Your task to perform on an android device: open app "Skype" (install if not already installed) and go to login screen Image 0: 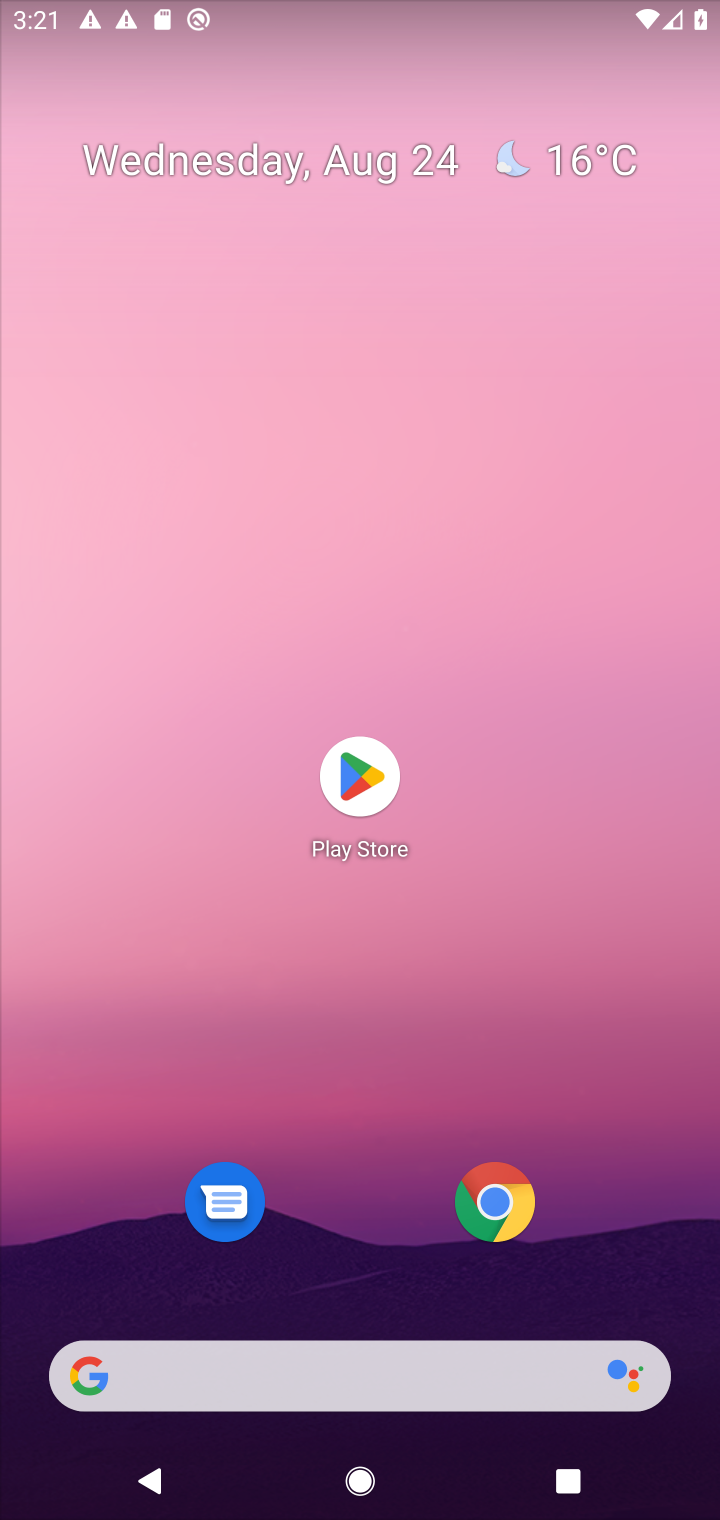
Step 0: press home button
Your task to perform on an android device: open app "Skype" (install if not already installed) and go to login screen Image 1: 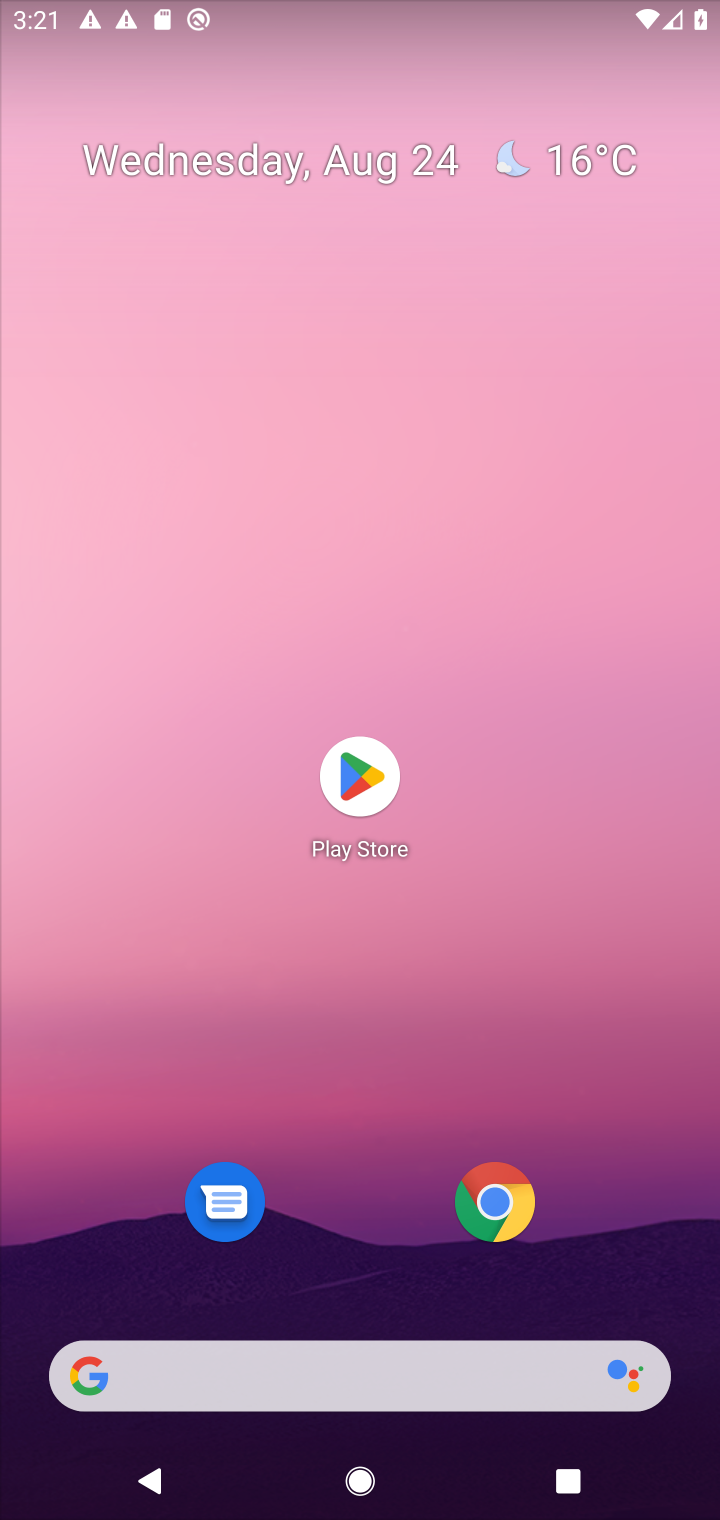
Step 1: click (369, 782)
Your task to perform on an android device: open app "Skype" (install if not already installed) and go to login screen Image 2: 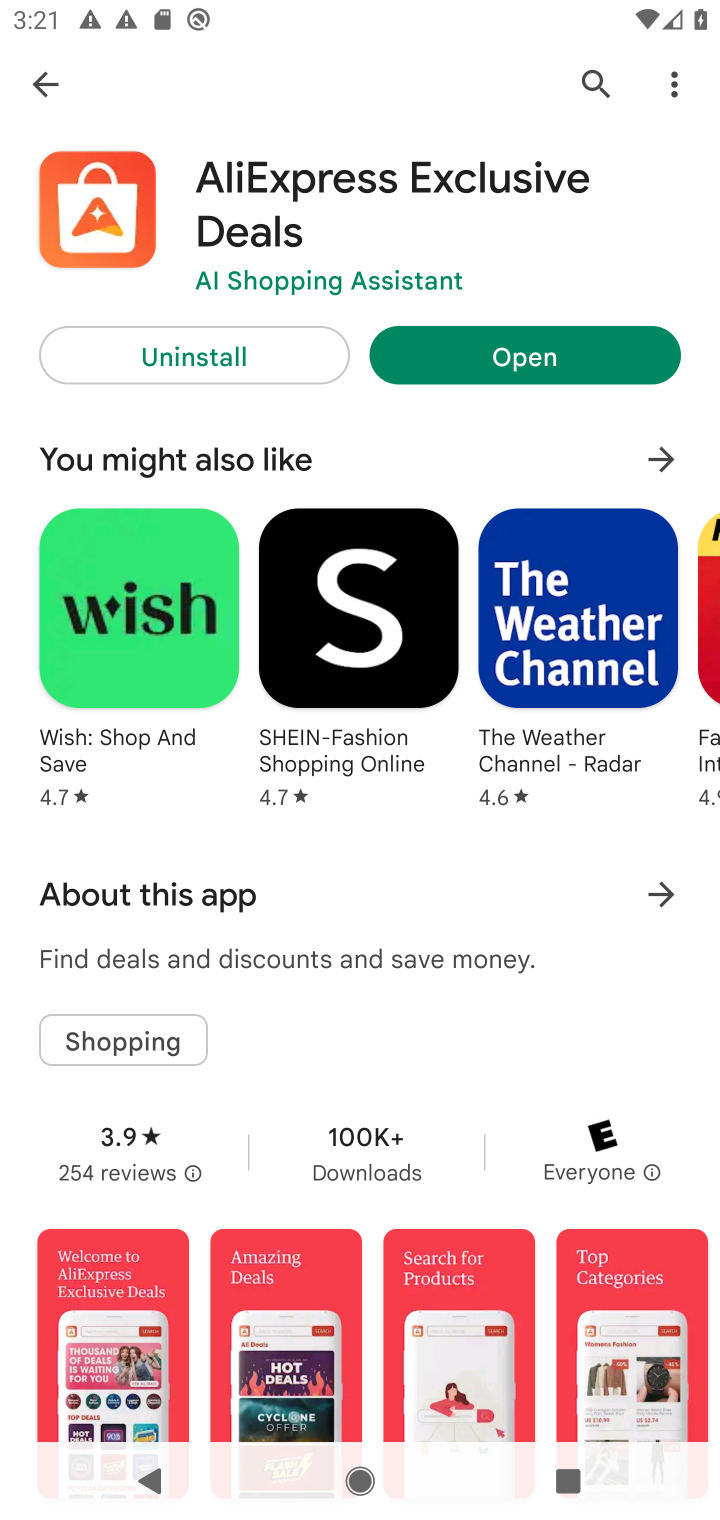
Step 2: click (590, 76)
Your task to perform on an android device: open app "Skype" (install if not already installed) and go to login screen Image 3: 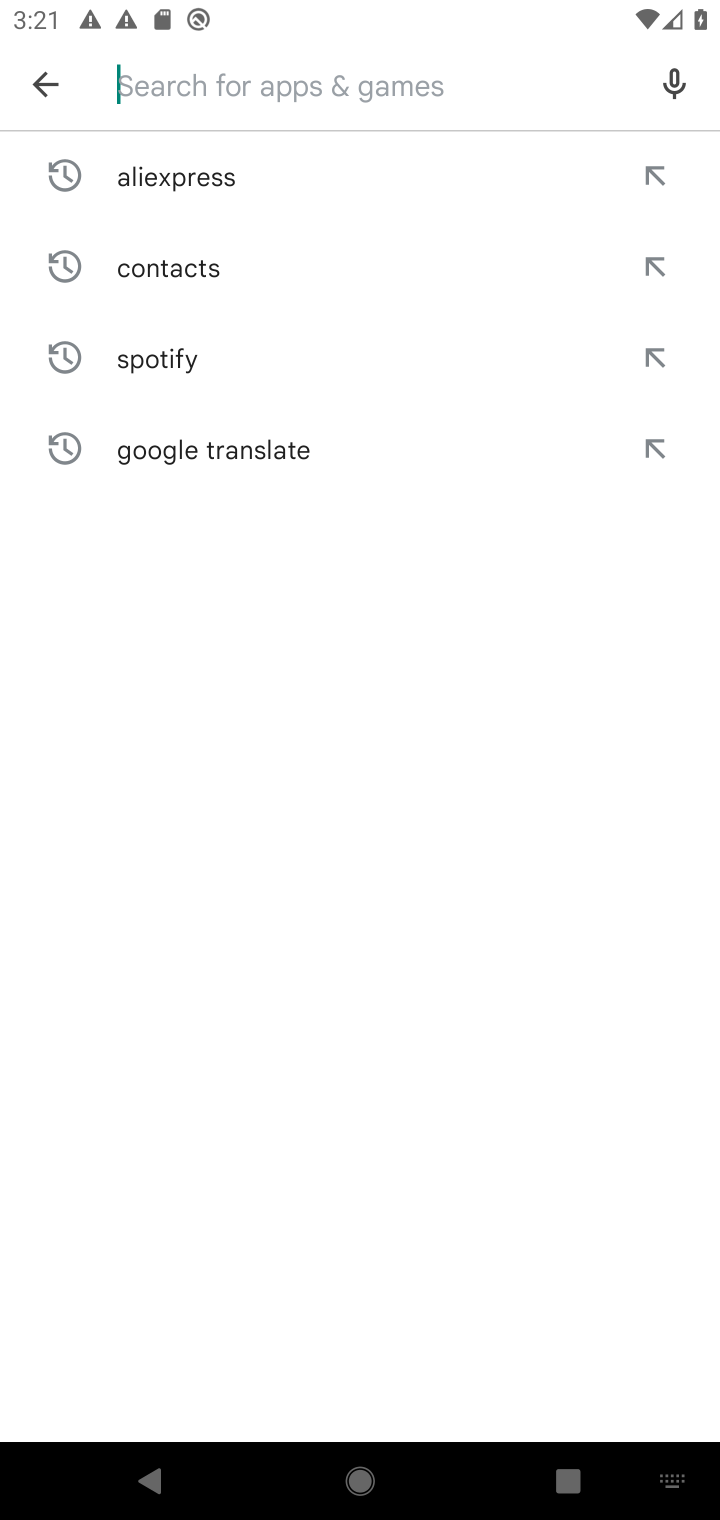
Step 3: type "Skype"
Your task to perform on an android device: open app "Skype" (install if not already installed) and go to login screen Image 4: 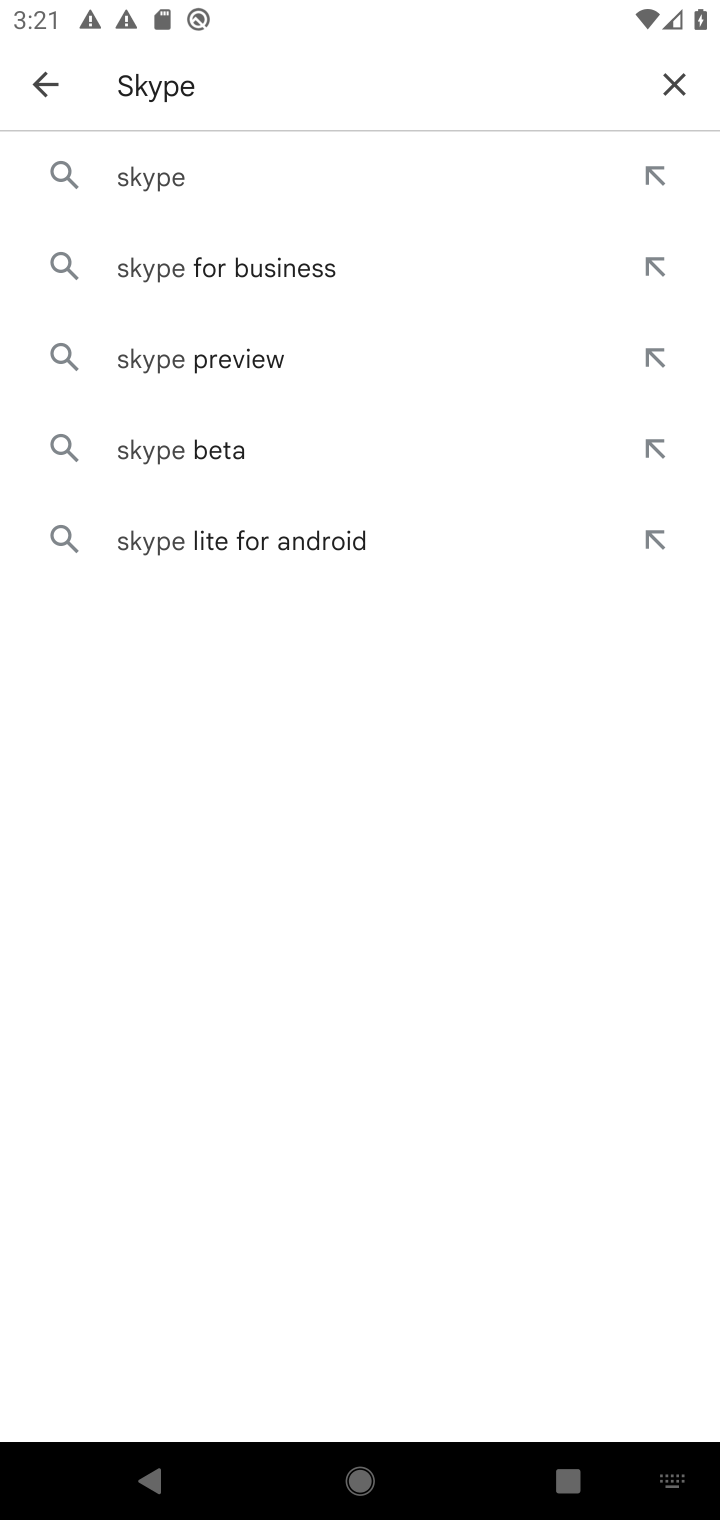
Step 4: click (137, 171)
Your task to perform on an android device: open app "Skype" (install if not already installed) and go to login screen Image 5: 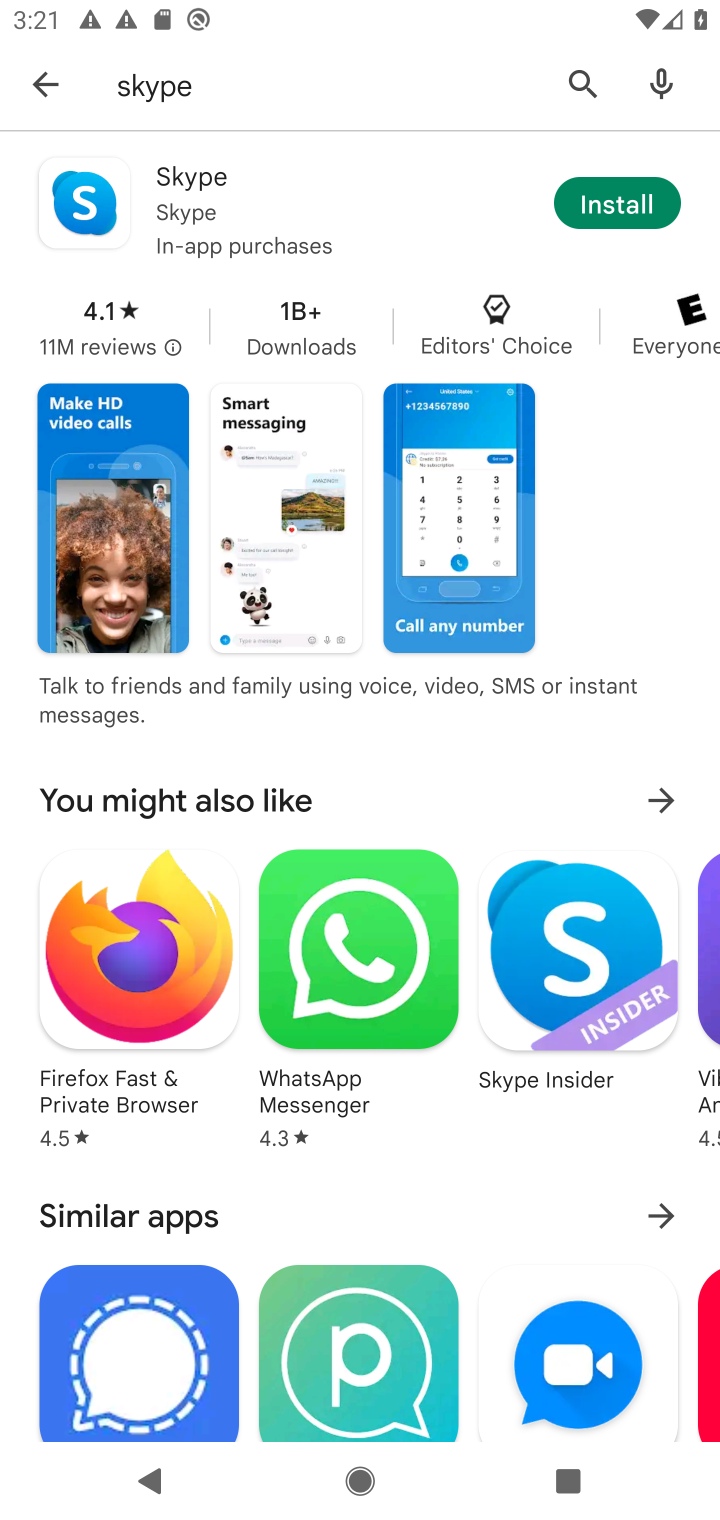
Step 5: click (628, 199)
Your task to perform on an android device: open app "Skype" (install if not already installed) and go to login screen Image 6: 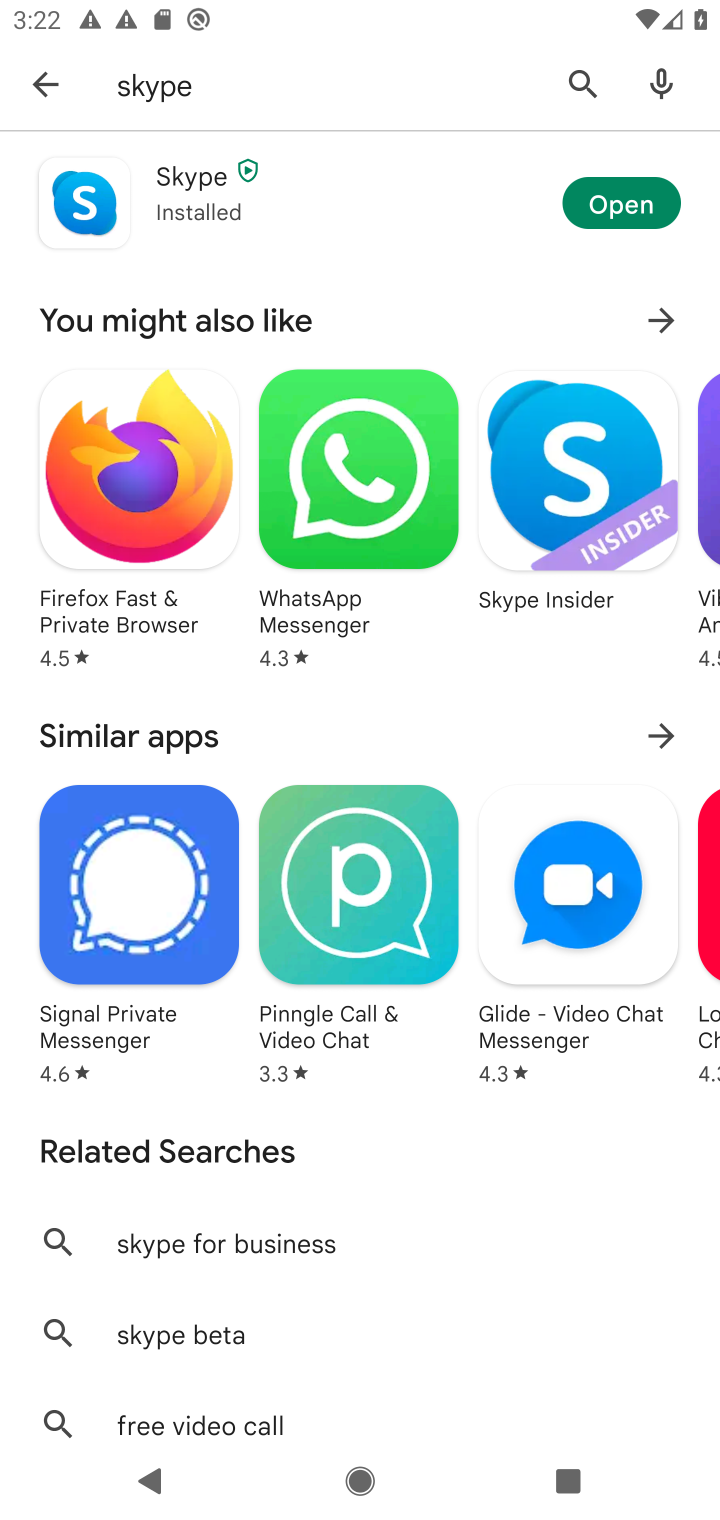
Step 6: click (615, 198)
Your task to perform on an android device: open app "Skype" (install if not already installed) and go to login screen Image 7: 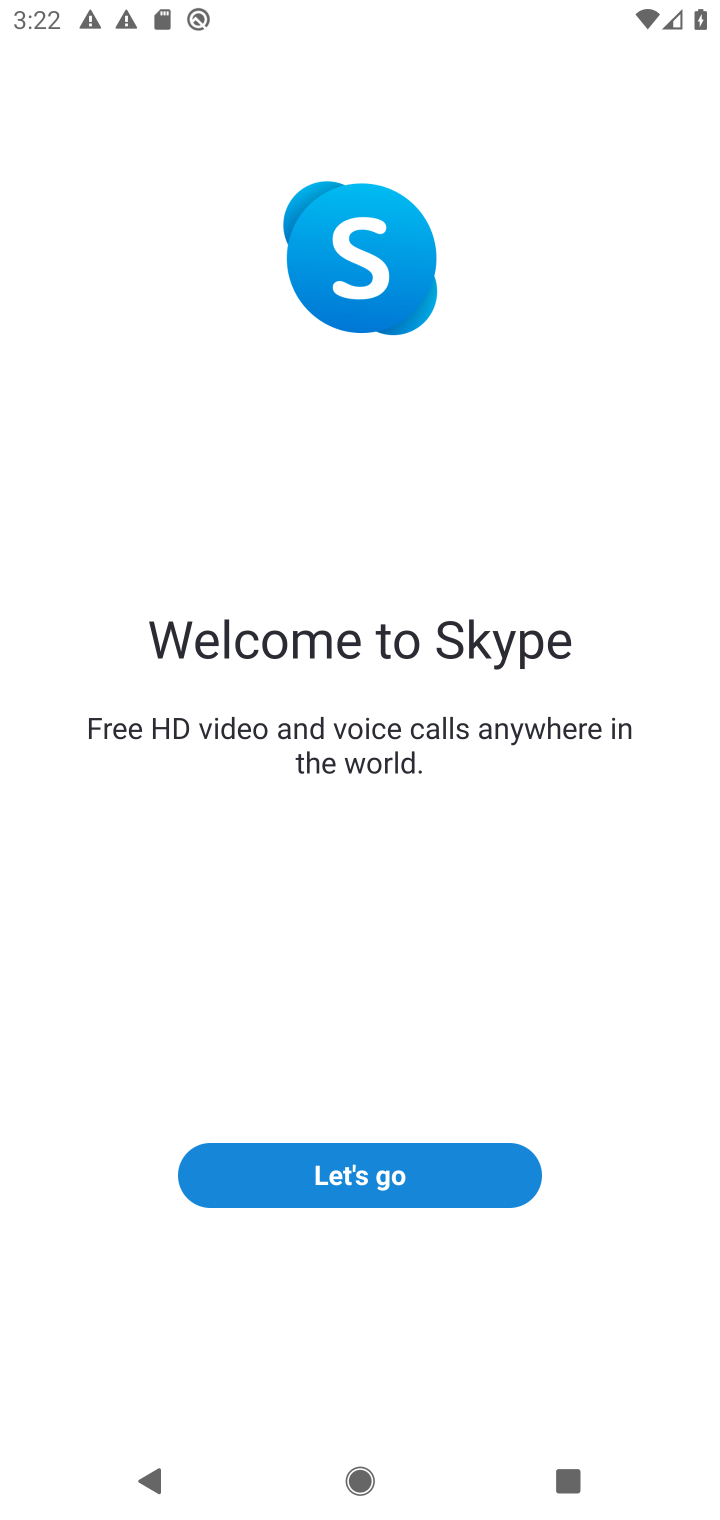
Step 7: click (464, 1173)
Your task to perform on an android device: open app "Skype" (install if not already installed) and go to login screen Image 8: 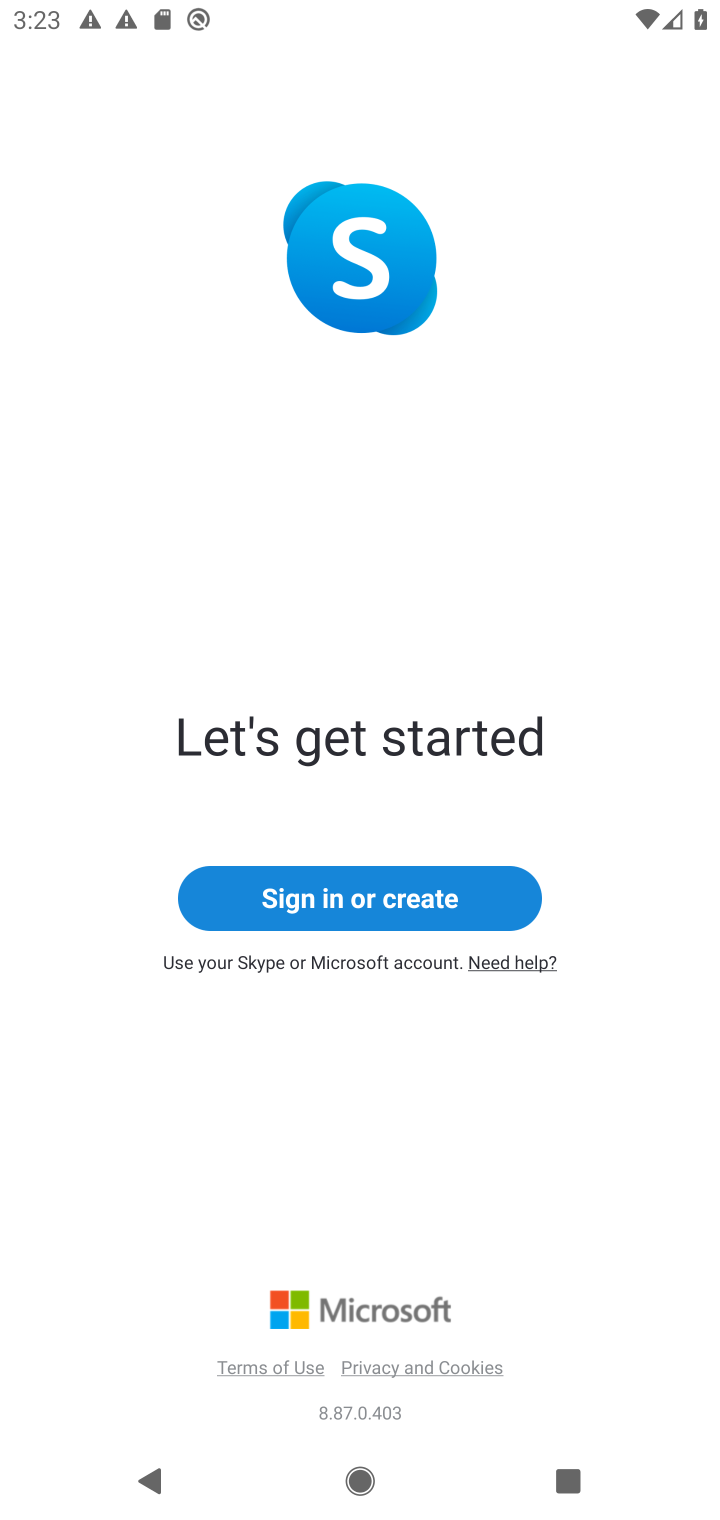
Step 8: task complete